Your task to perform on an android device: open a bookmark in the chrome app Image 0: 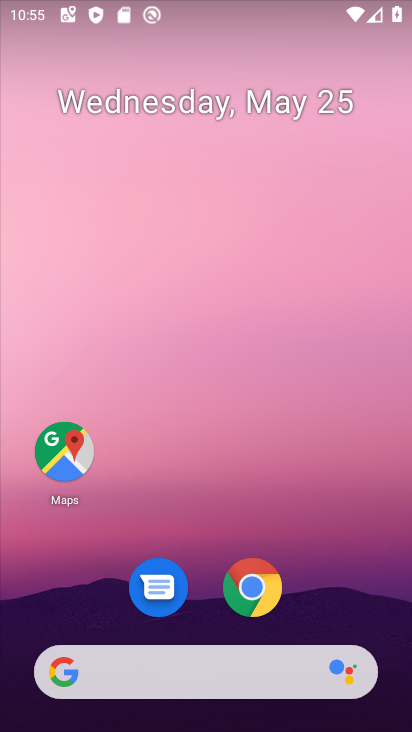
Step 0: drag from (339, 605) to (261, 34)
Your task to perform on an android device: open a bookmark in the chrome app Image 1: 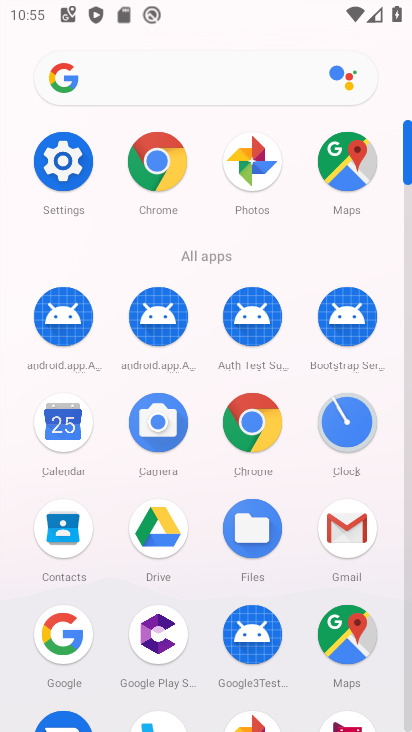
Step 1: click (249, 416)
Your task to perform on an android device: open a bookmark in the chrome app Image 2: 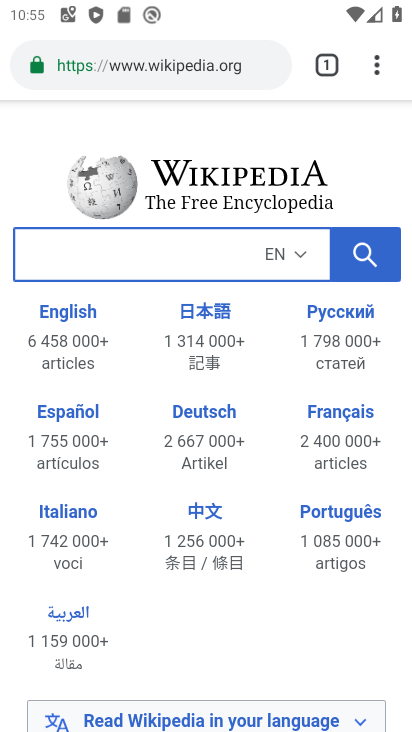
Step 2: task complete